Your task to perform on an android device: When is my next meeting? Image 0: 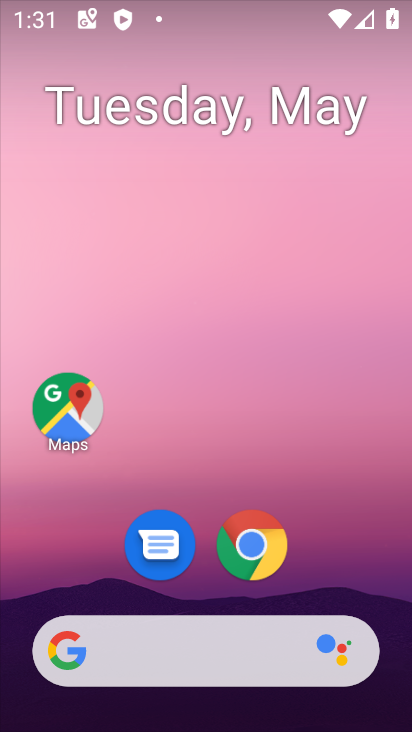
Step 0: drag from (380, 610) to (383, 73)
Your task to perform on an android device: When is my next meeting? Image 1: 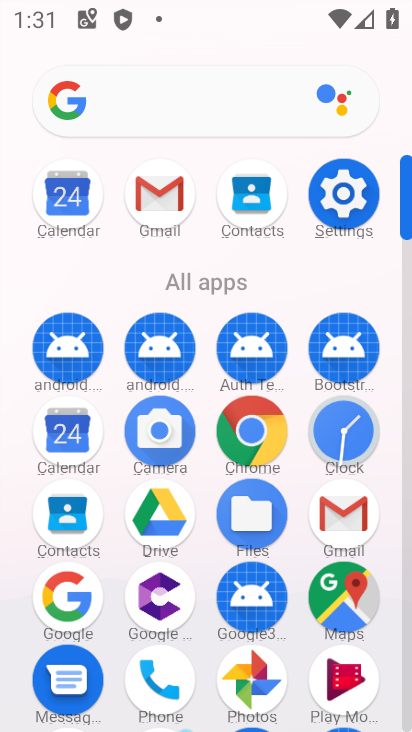
Step 1: click (65, 426)
Your task to perform on an android device: When is my next meeting? Image 2: 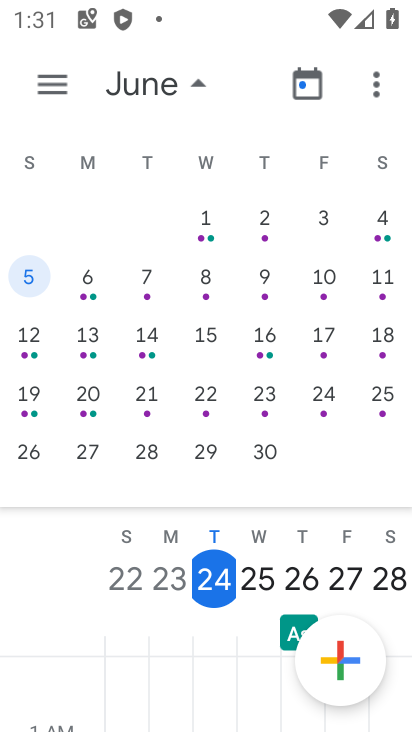
Step 2: click (51, 87)
Your task to perform on an android device: When is my next meeting? Image 3: 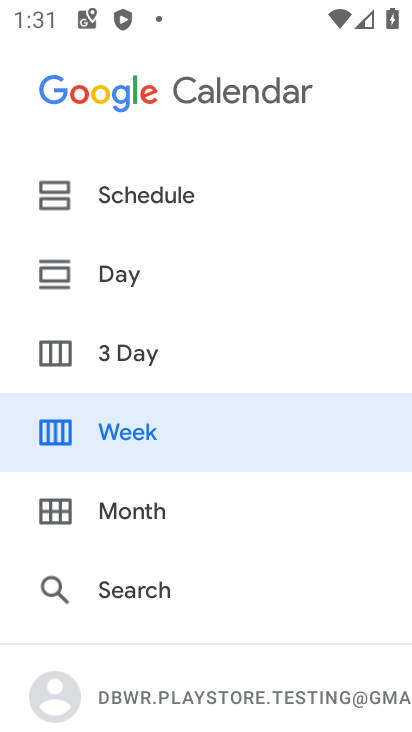
Step 3: click (138, 205)
Your task to perform on an android device: When is my next meeting? Image 4: 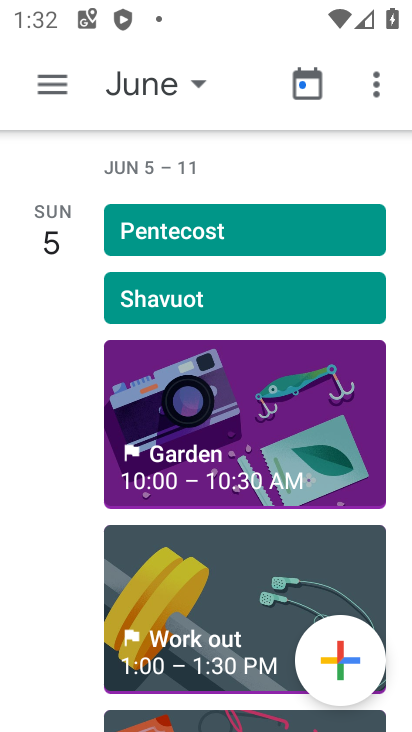
Step 4: task complete